Your task to perform on an android device: turn on wifi Image 0: 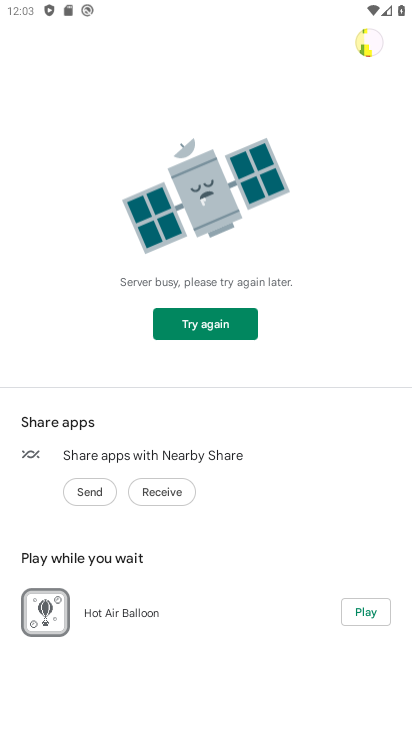
Step 0: press home button
Your task to perform on an android device: turn on wifi Image 1: 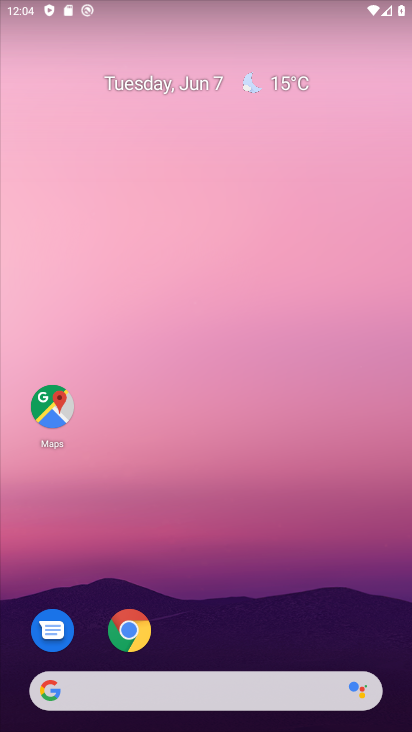
Step 1: drag from (360, 543) to (371, 168)
Your task to perform on an android device: turn on wifi Image 2: 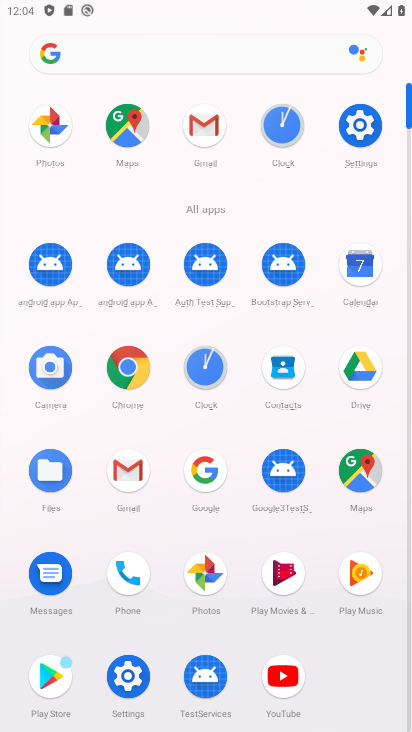
Step 2: click (135, 690)
Your task to perform on an android device: turn on wifi Image 3: 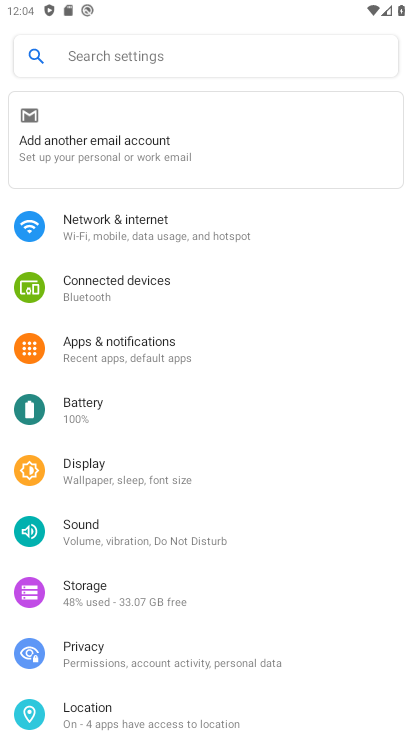
Step 3: click (140, 221)
Your task to perform on an android device: turn on wifi Image 4: 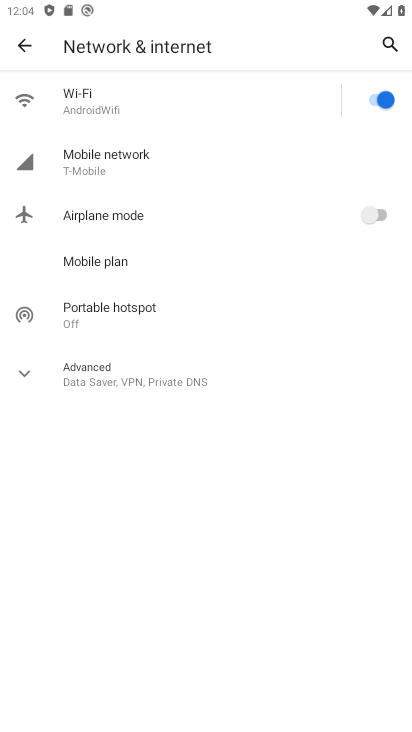
Step 4: task complete